Your task to perform on an android device: turn vacation reply on in the gmail app Image 0: 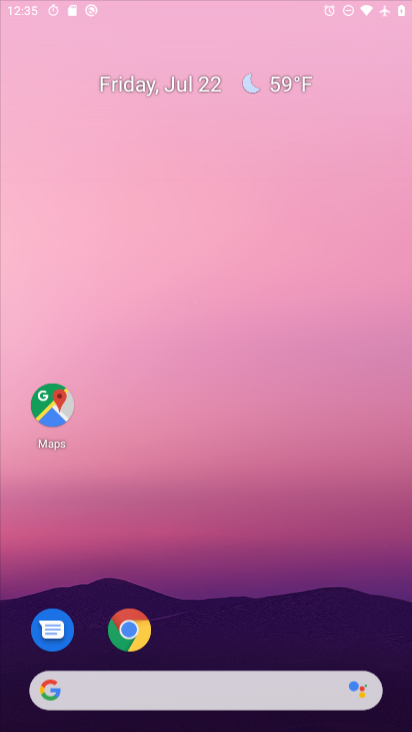
Step 0: press home button
Your task to perform on an android device: turn vacation reply on in the gmail app Image 1: 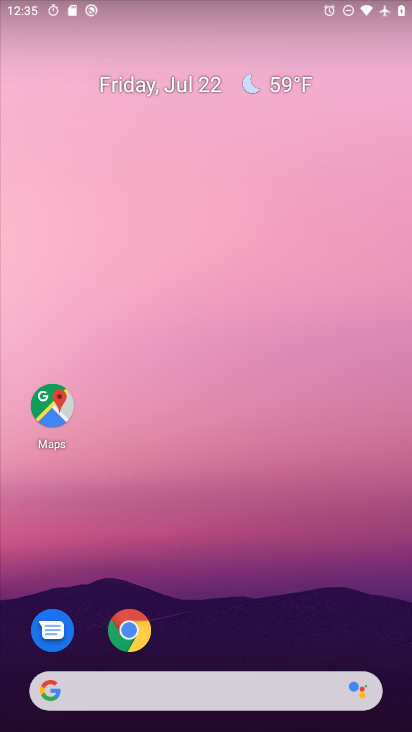
Step 1: drag from (272, 607) to (265, 410)
Your task to perform on an android device: turn vacation reply on in the gmail app Image 2: 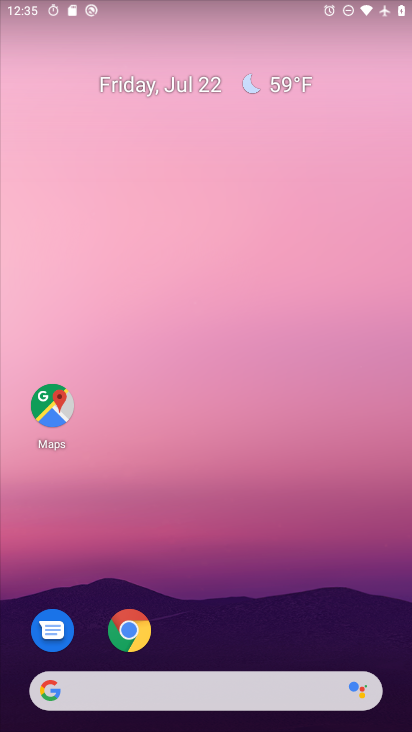
Step 2: drag from (256, 630) to (234, 163)
Your task to perform on an android device: turn vacation reply on in the gmail app Image 3: 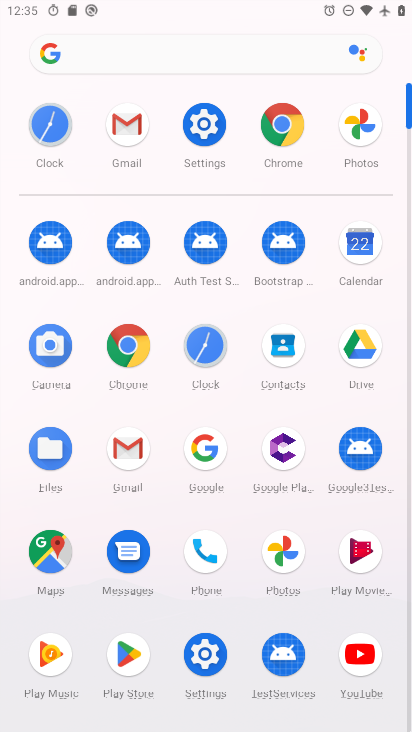
Step 3: click (135, 135)
Your task to perform on an android device: turn vacation reply on in the gmail app Image 4: 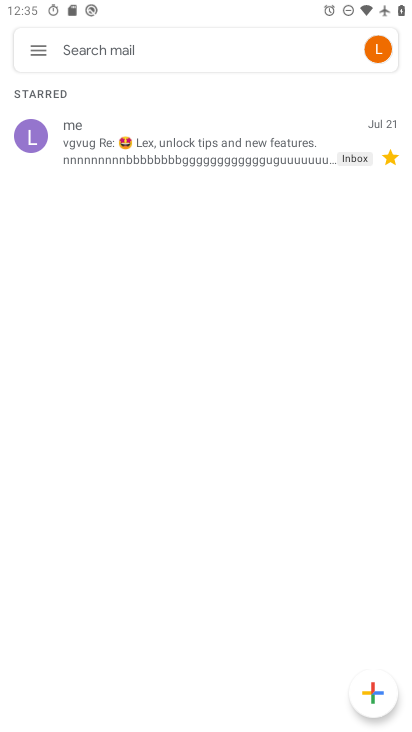
Step 4: click (37, 52)
Your task to perform on an android device: turn vacation reply on in the gmail app Image 5: 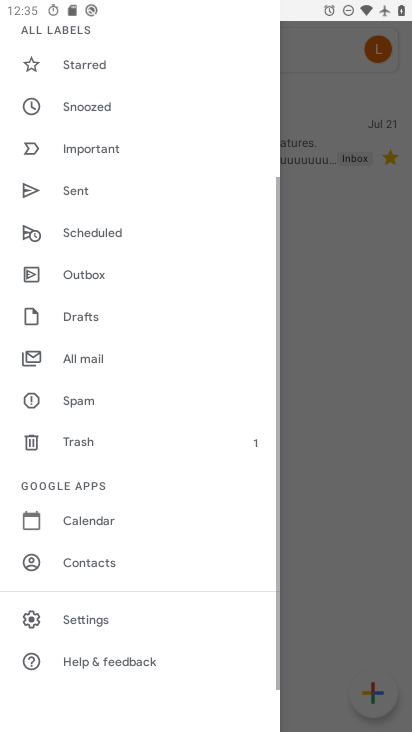
Step 5: click (80, 614)
Your task to perform on an android device: turn vacation reply on in the gmail app Image 6: 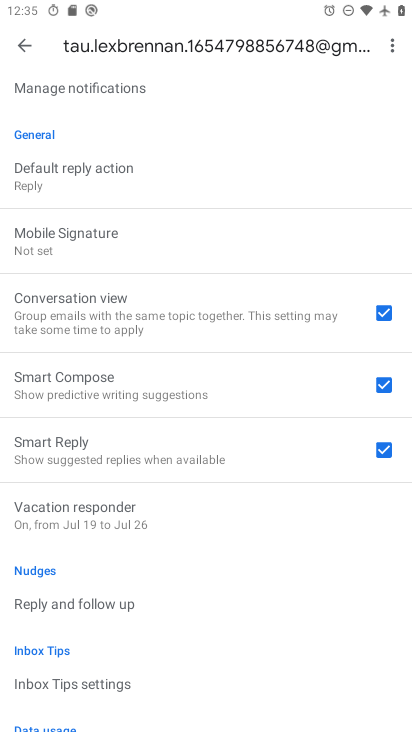
Step 6: drag from (249, 607) to (204, 189)
Your task to perform on an android device: turn vacation reply on in the gmail app Image 7: 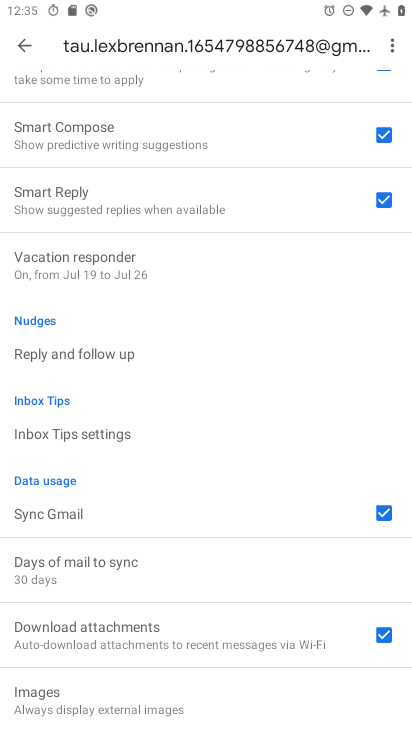
Step 7: drag from (203, 499) to (209, 276)
Your task to perform on an android device: turn vacation reply on in the gmail app Image 8: 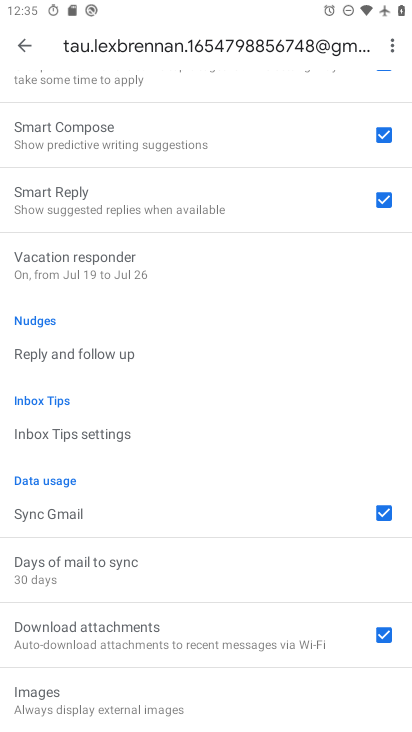
Step 8: click (57, 276)
Your task to perform on an android device: turn vacation reply on in the gmail app Image 9: 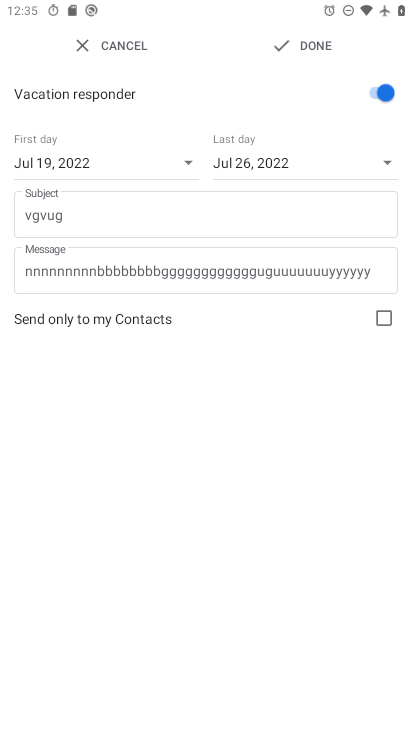
Step 9: task complete